Your task to perform on an android device: uninstall "Walmart Shopping & Grocery" Image 0: 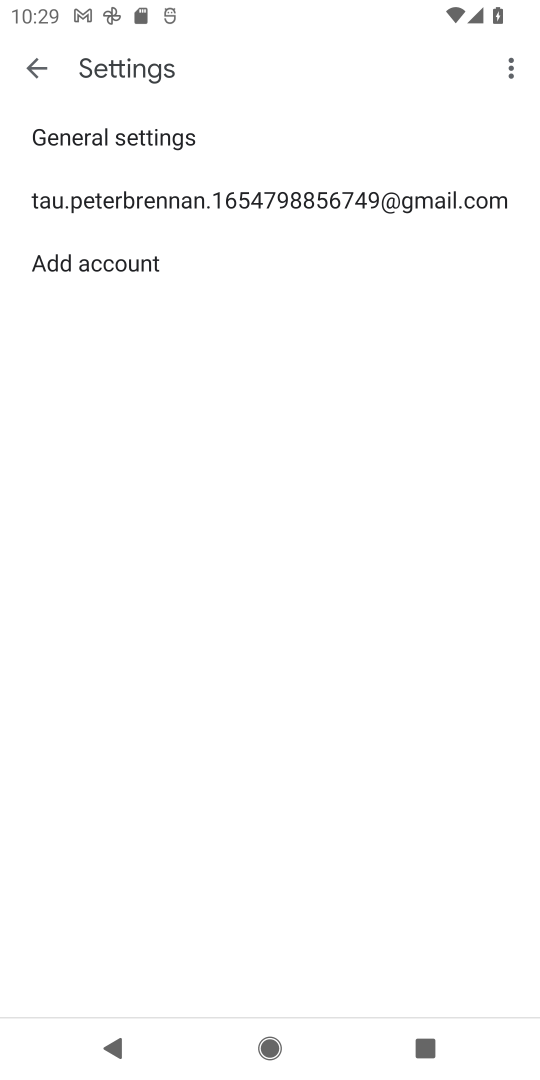
Step 0: press home button
Your task to perform on an android device: uninstall "Walmart Shopping & Grocery" Image 1: 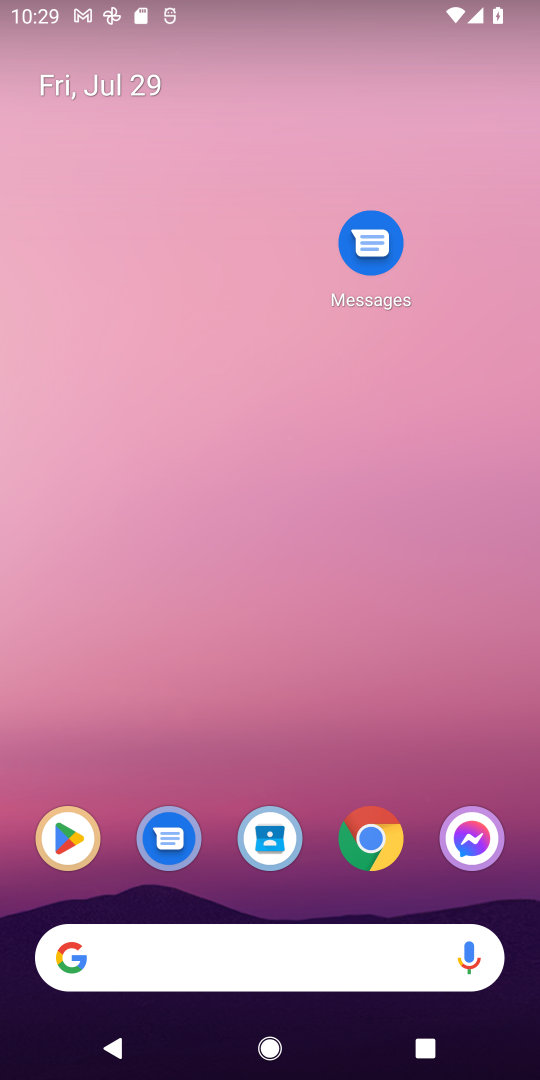
Step 1: click (57, 840)
Your task to perform on an android device: uninstall "Walmart Shopping & Grocery" Image 2: 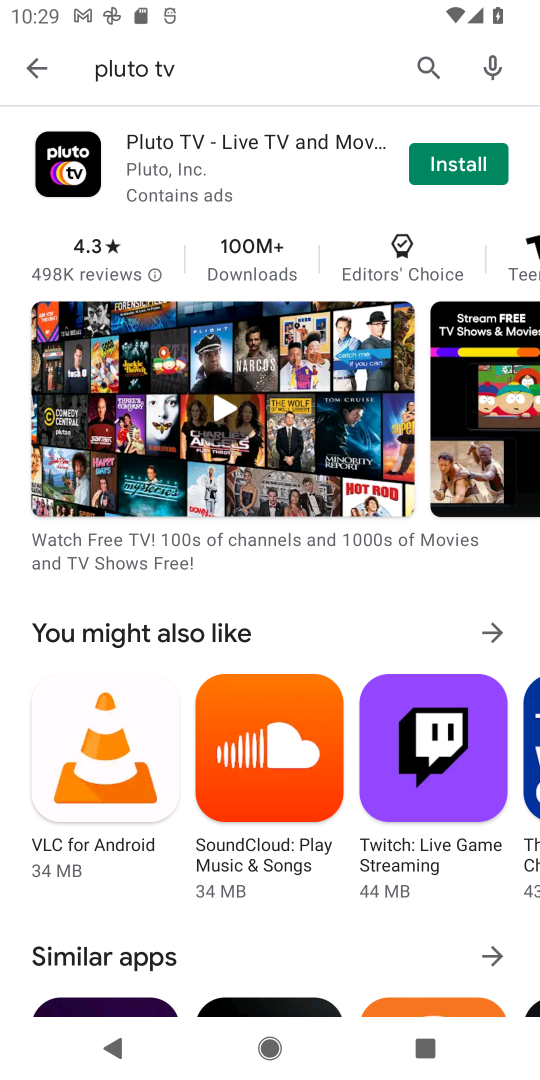
Step 2: click (185, 67)
Your task to perform on an android device: uninstall "Walmart Shopping & Grocery" Image 3: 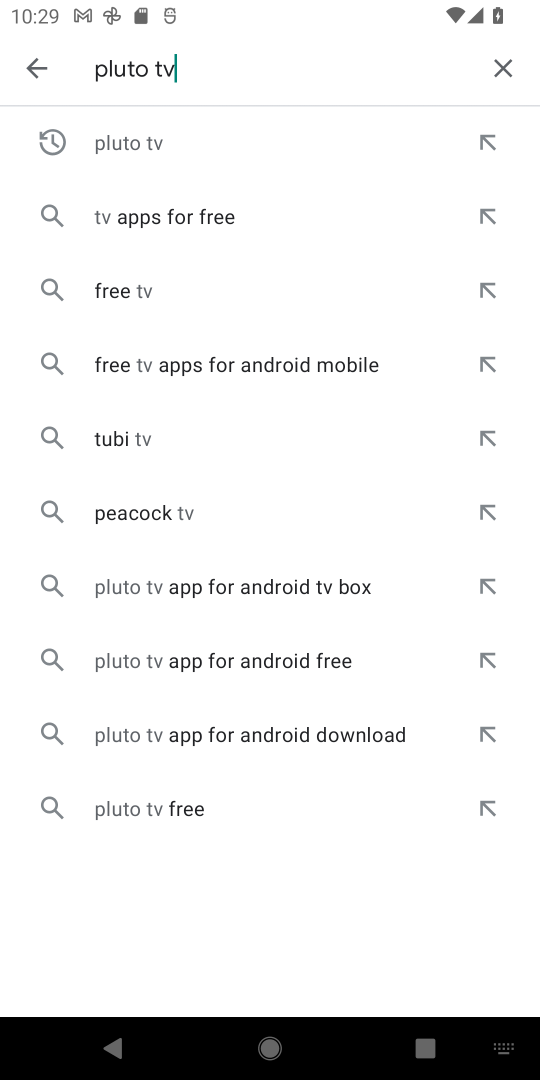
Step 3: click (498, 53)
Your task to perform on an android device: uninstall "Walmart Shopping & Grocery" Image 4: 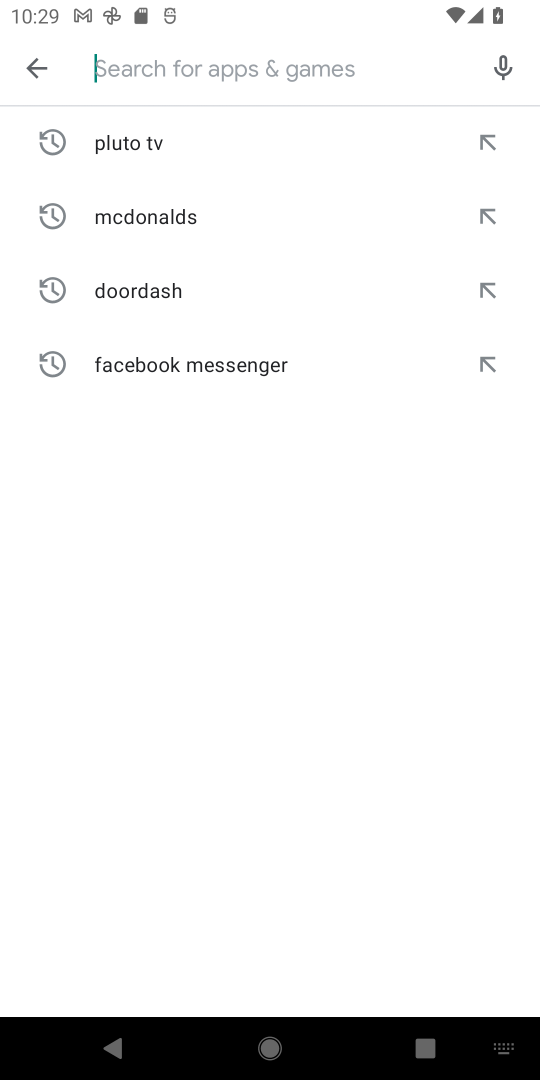
Step 4: type "Walmart"
Your task to perform on an android device: uninstall "Walmart Shopping & Grocery" Image 5: 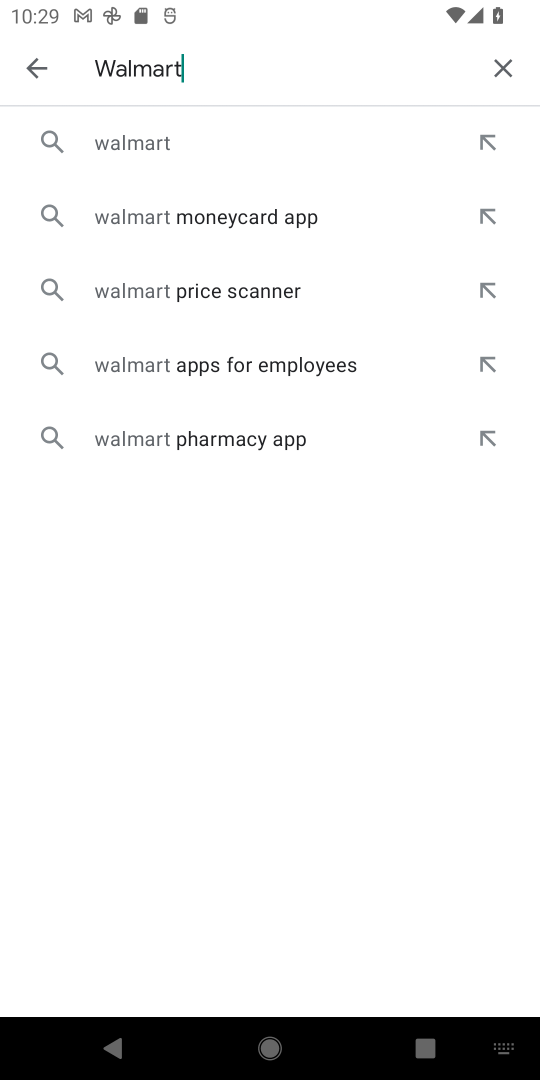
Step 5: click (162, 151)
Your task to perform on an android device: uninstall "Walmart Shopping & Grocery" Image 6: 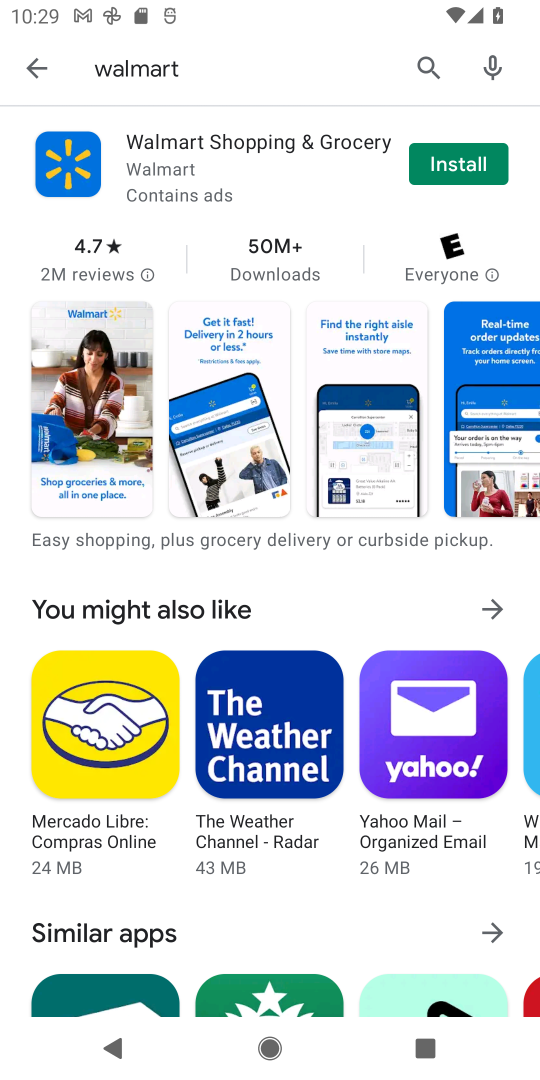
Step 6: task complete